Your task to perform on an android device: delete the emails in spam in the gmail app Image 0: 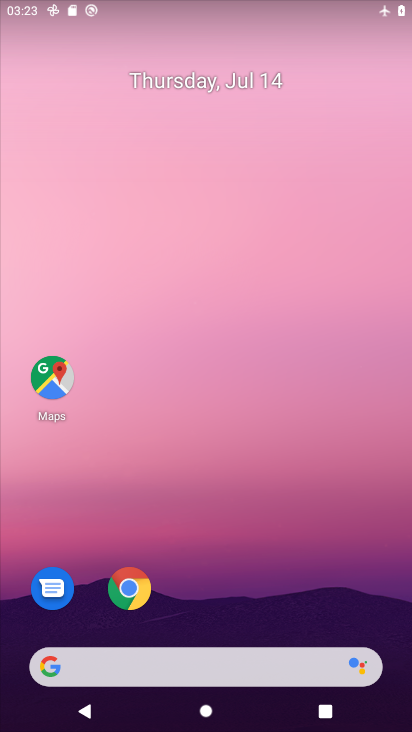
Step 0: drag from (257, 615) to (215, 215)
Your task to perform on an android device: delete the emails in spam in the gmail app Image 1: 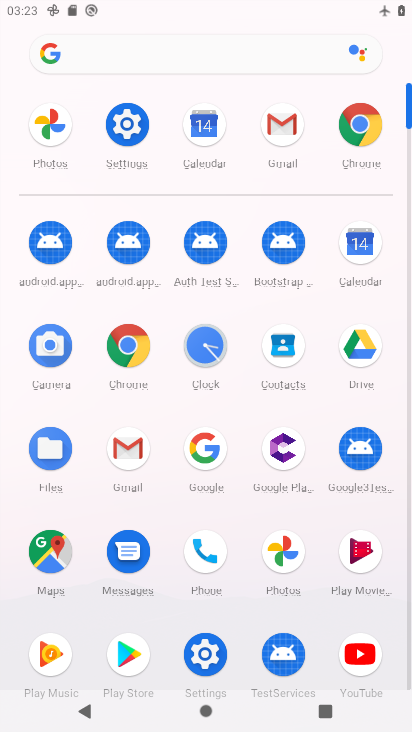
Step 1: click (283, 121)
Your task to perform on an android device: delete the emails in spam in the gmail app Image 2: 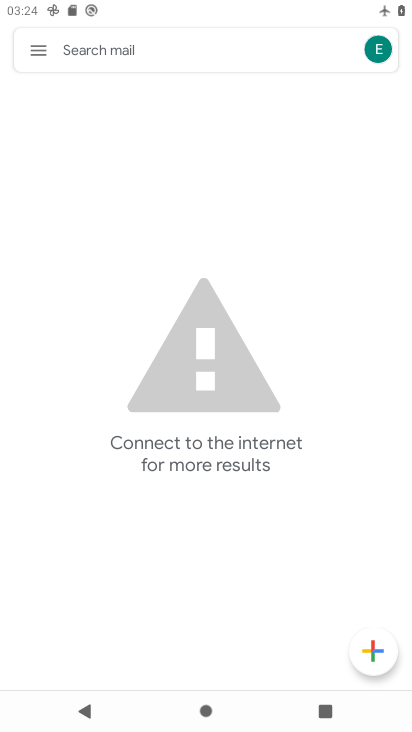
Step 2: click (38, 45)
Your task to perform on an android device: delete the emails in spam in the gmail app Image 3: 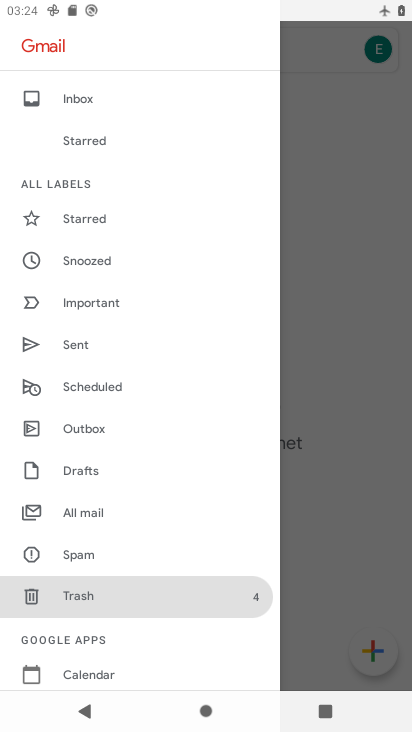
Step 3: click (105, 564)
Your task to perform on an android device: delete the emails in spam in the gmail app Image 4: 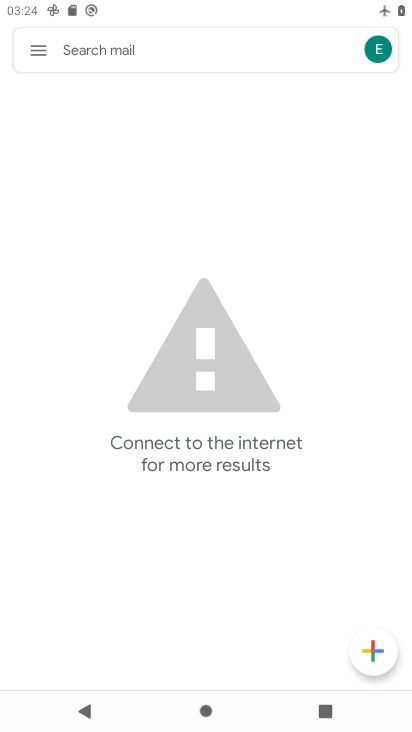
Step 4: task complete